Your task to perform on an android device: Open the web browser Image 0: 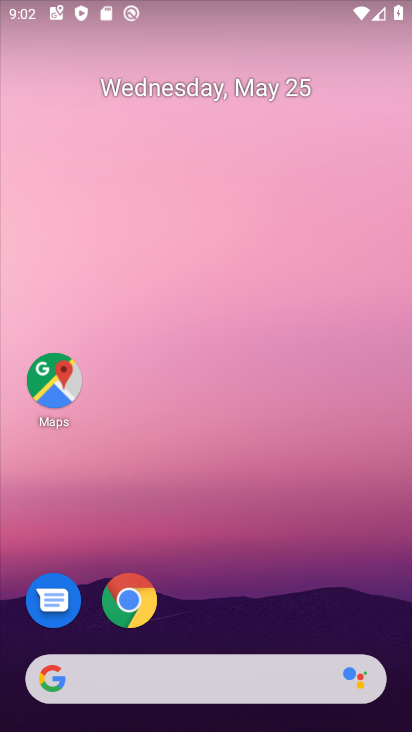
Step 0: drag from (270, 581) to (175, 28)
Your task to perform on an android device: Open the web browser Image 1: 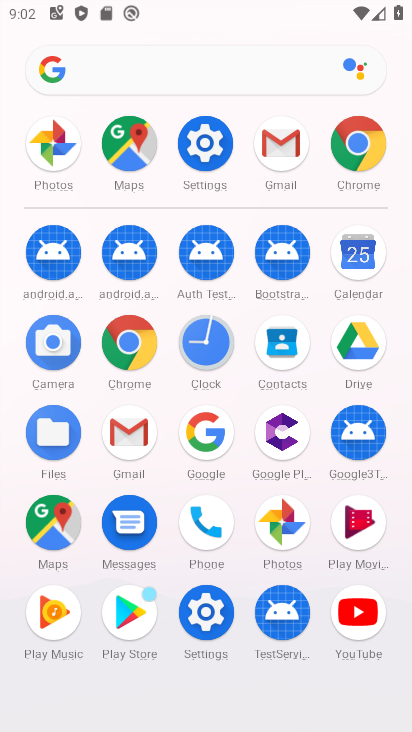
Step 1: drag from (0, 525) to (16, 178)
Your task to perform on an android device: Open the web browser Image 2: 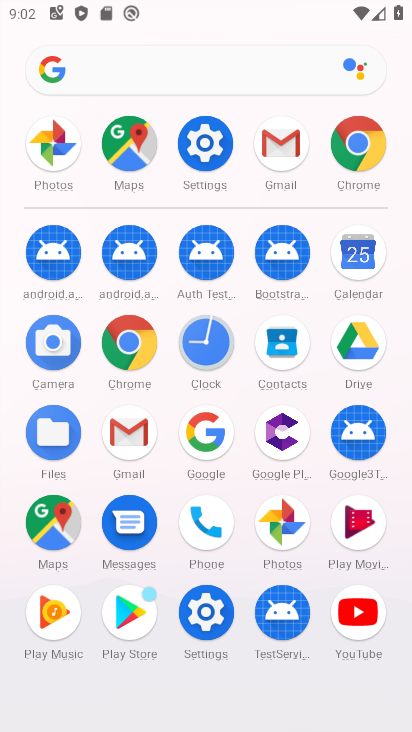
Step 2: click (131, 341)
Your task to perform on an android device: Open the web browser Image 3: 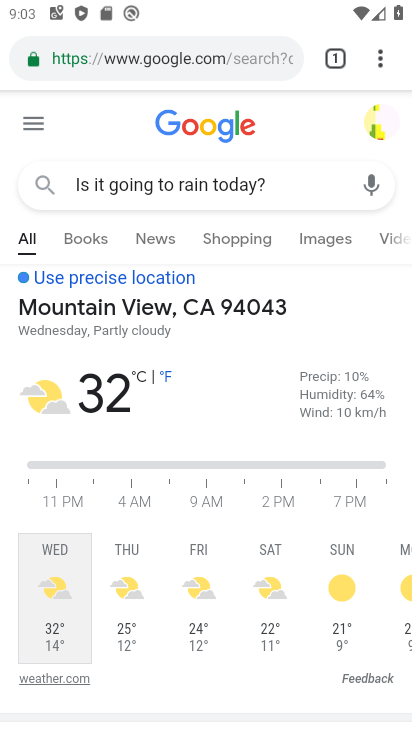
Step 3: task complete